Your task to perform on an android device: What's a good restaurant near me? Image 0: 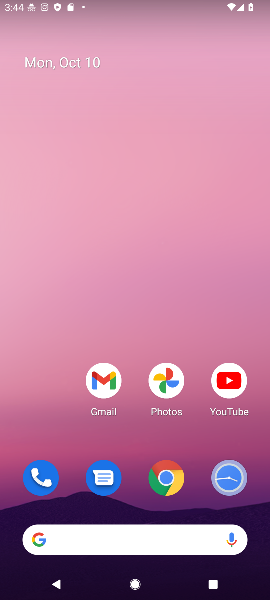
Step 0: click (162, 477)
Your task to perform on an android device: What's a good restaurant near me? Image 1: 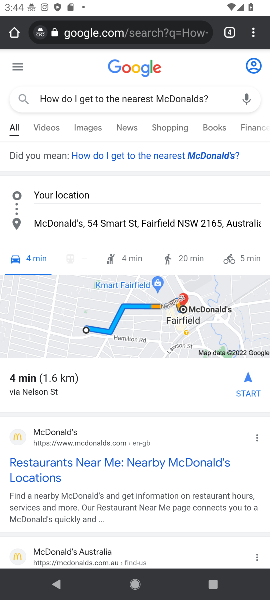
Step 1: click (107, 38)
Your task to perform on an android device: What's a good restaurant near me? Image 2: 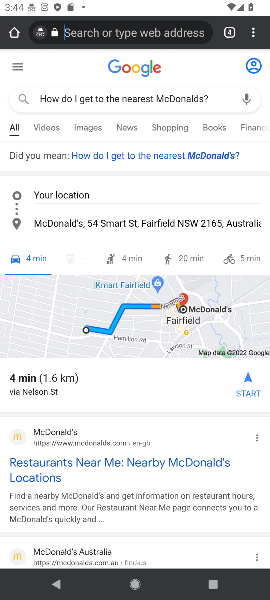
Step 2: click (107, 38)
Your task to perform on an android device: What's a good restaurant near me? Image 3: 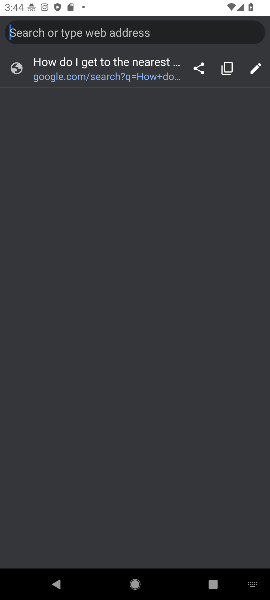
Step 3: type "What's a good restaurant near me?"
Your task to perform on an android device: What's a good restaurant near me? Image 4: 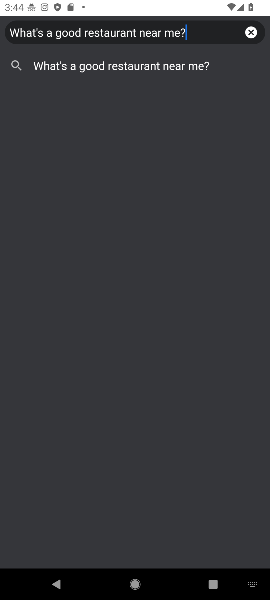
Step 4: click (180, 75)
Your task to perform on an android device: What's a good restaurant near me? Image 5: 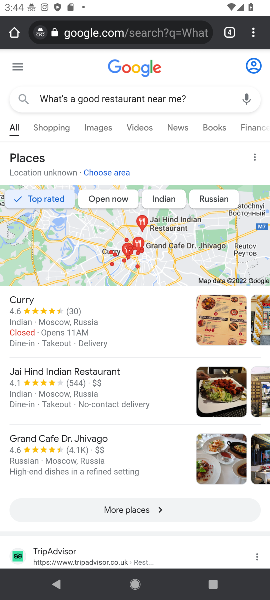
Step 5: click (118, 514)
Your task to perform on an android device: What's a good restaurant near me? Image 6: 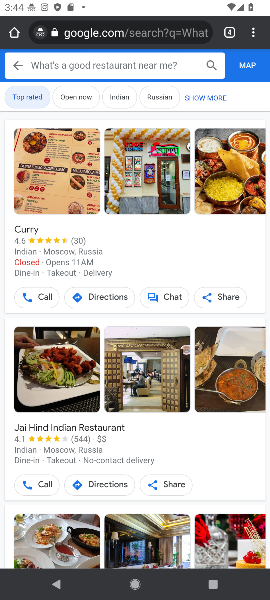
Step 6: task complete